Your task to perform on an android device: turn notification dots off Image 0: 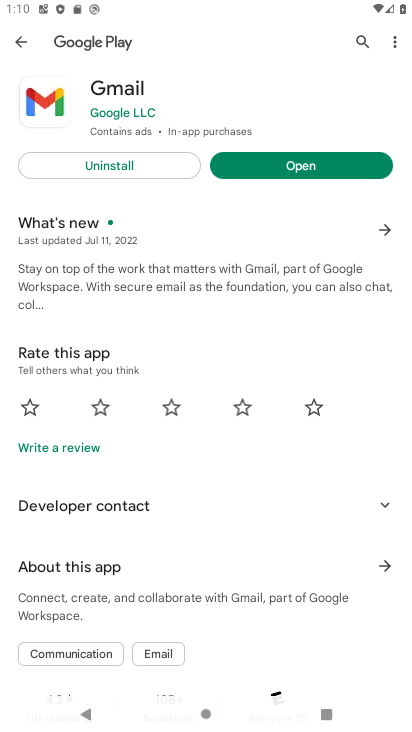
Step 0: task complete